Your task to perform on an android device: Open sound settings Image 0: 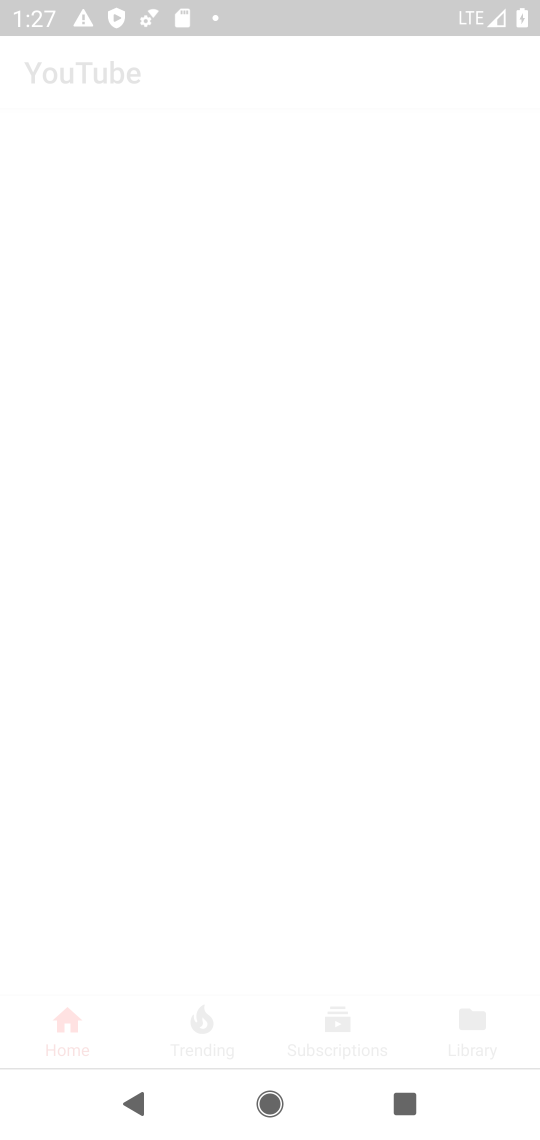
Step 0: press home button
Your task to perform on an android device: Open sound settings Image 1: 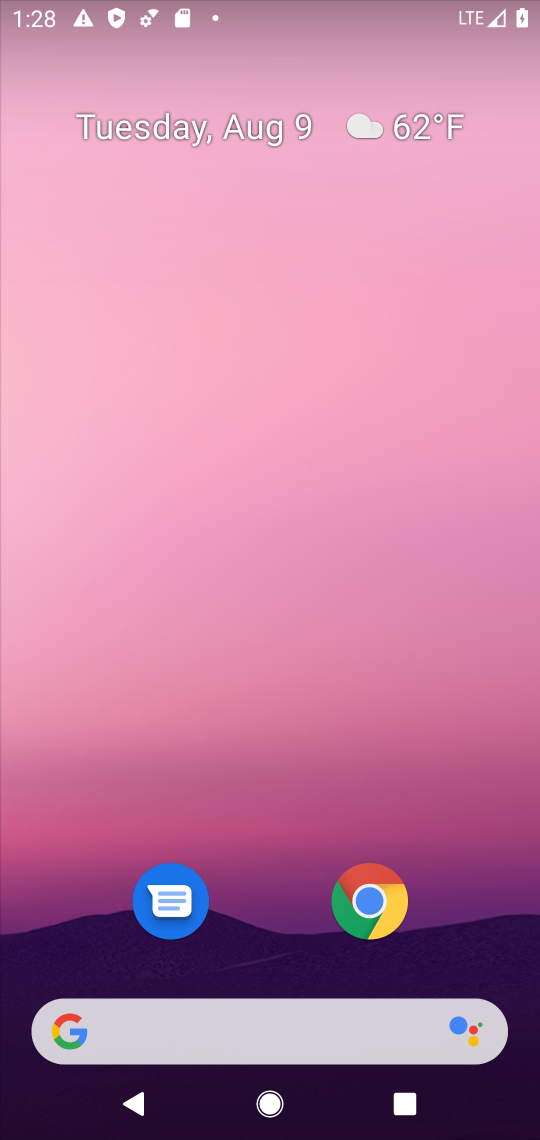
Step 1: drag from (522, 997) to (475, 259)
Your task to perform on an android device: Open sound settings Image 2: 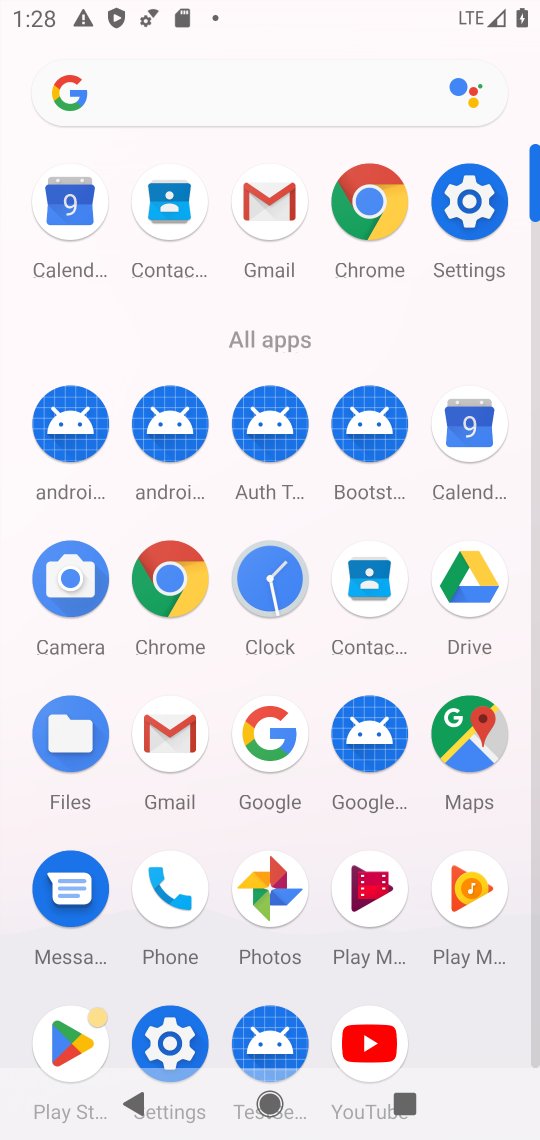
Step 2: click (170, 1048)
Your task to perform on an android device: Open sound settings Image 3: 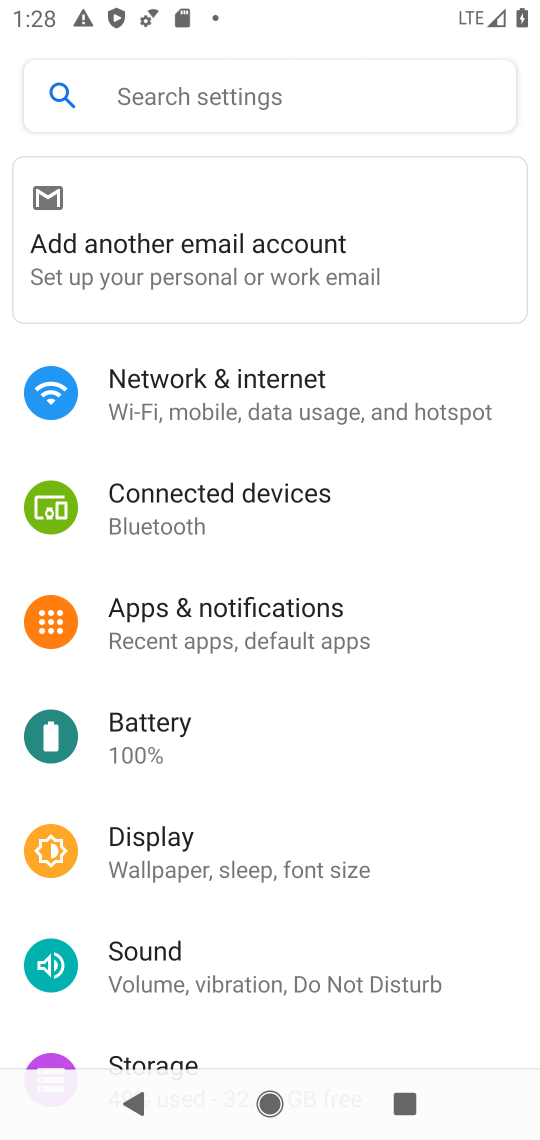
Step 3: click (181, 962)
Your task to perform on an android device: Open sound settings Image 4: 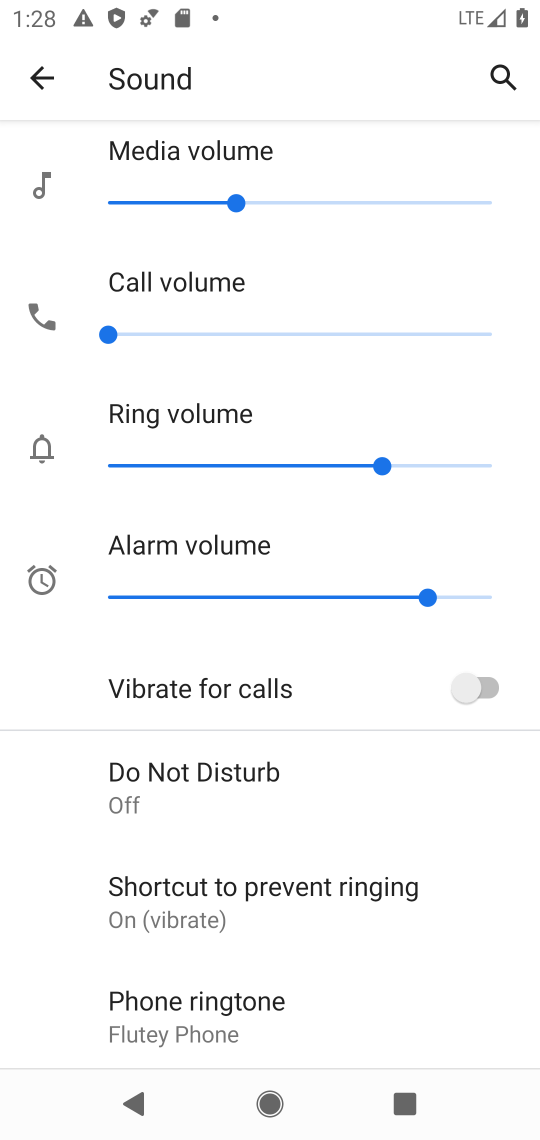
Step 4: task complete